Your task to perform on an android device: Go to Android settings Image 0: 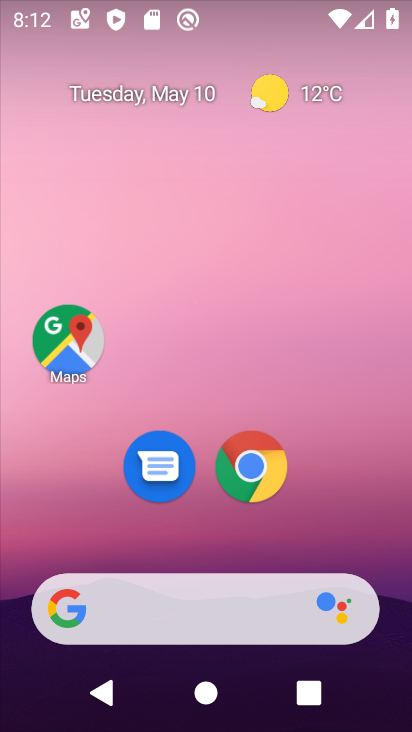
Step 0: drag from (211, 532) to (284, 4)
Your task to perform on an android device: Go to Android settings Image 1: 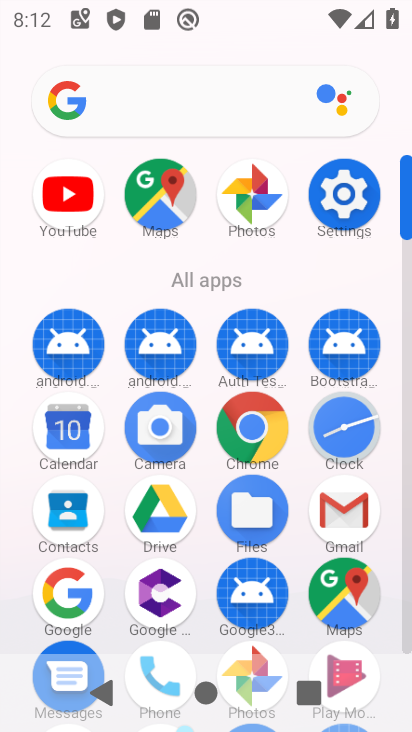
Step 1: click (340, 199)
Your task to perform on an android device: Go to Android settings Image 2: 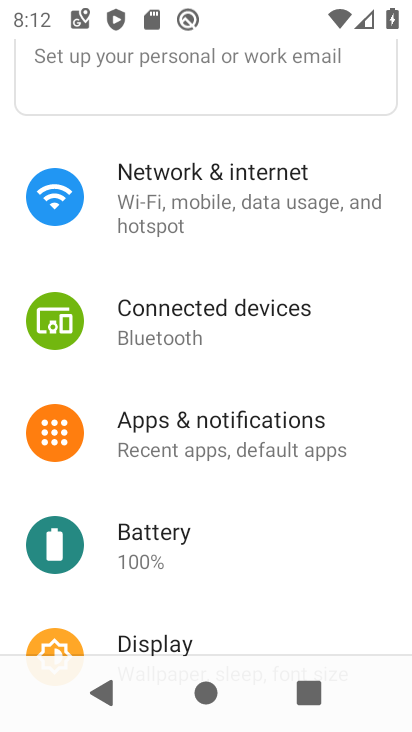
Step 2: drag from (217, 510) to (291, 2)
Your task to perform on an android device: Go to Android settings Image 3: 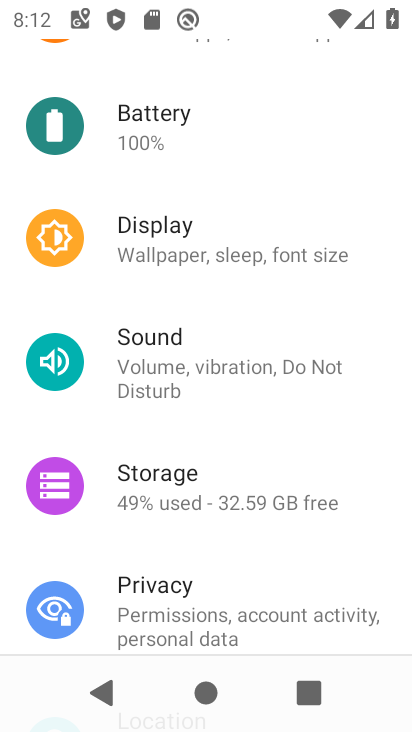
Step 3: drag from (186, 546) to (262, 110)
Your task to perform on an android device: Go to Android settings Image 4: 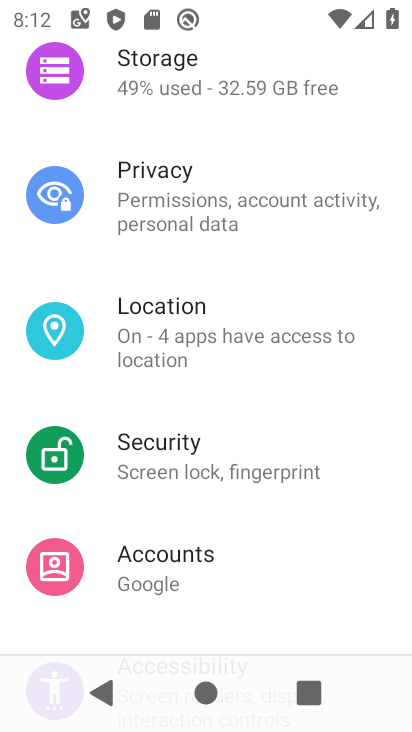
Step 4: drag from (221, 528) to (276, 174)
Your task to perform on an android device: Go to Android settings Image 5: 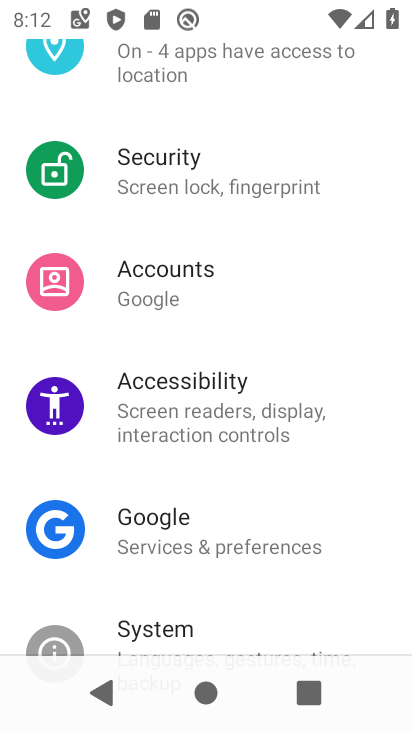
Step 5: drag from (211, 611) to (246, 182)
Your task to perform on an android device: Go to Android settings Image 6: 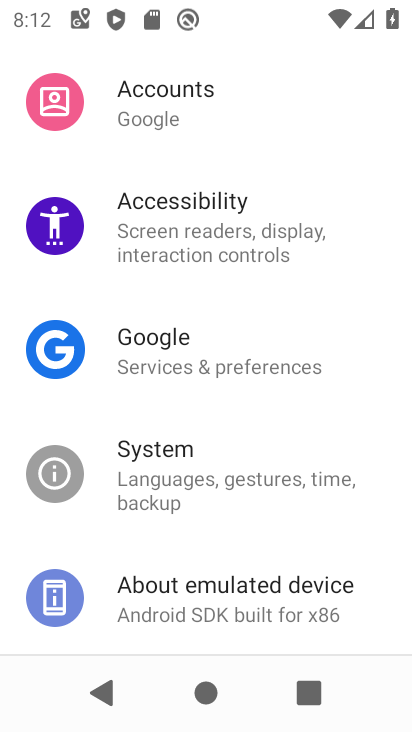
Step 6: click (165, 612)
Your task to perform on an android device: Go to Android settings Image 7: 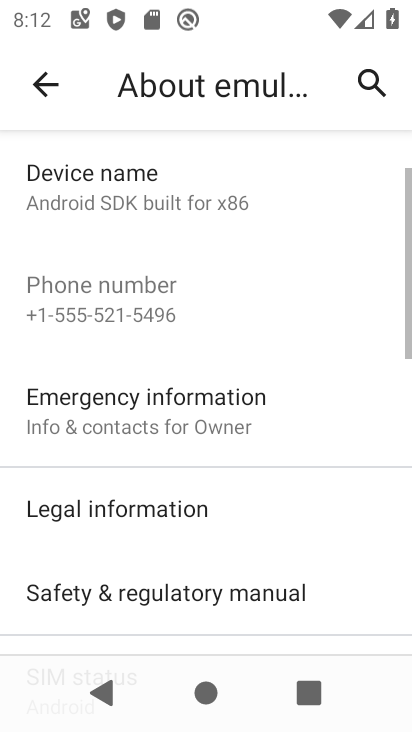
Step 7: drag from (164, 498) to (224, 133)
Your task to perform on an android device: Go to Android settings Image 8: 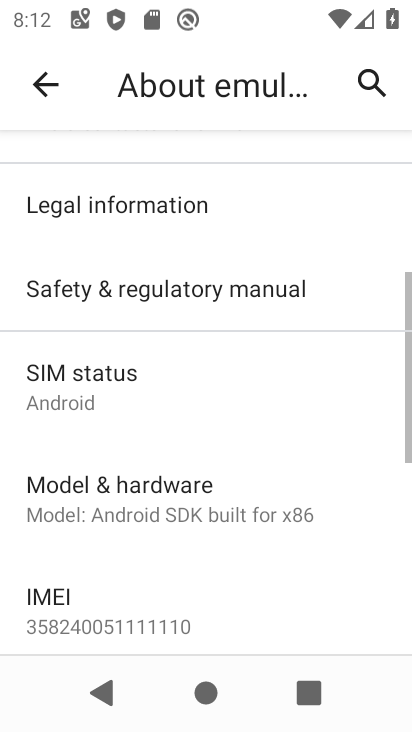
Step 8: drag from (127, 513) to (199, 201)
Your task to perform on an android device: Go to Android settings Image 9: 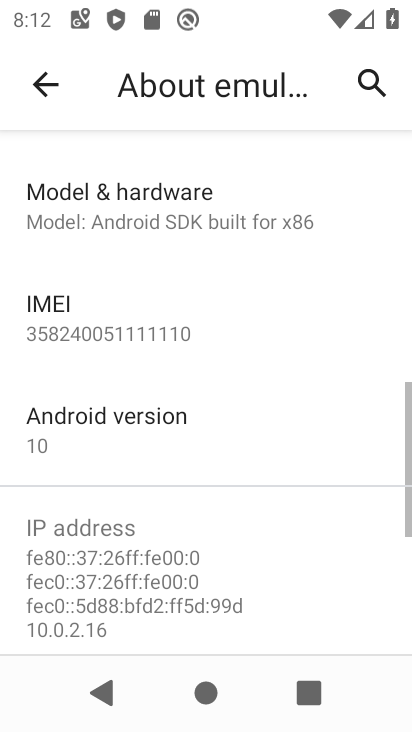
Step 9: click (132, 447)
Your task to perform on an android device: Go to Android settings Image 10: 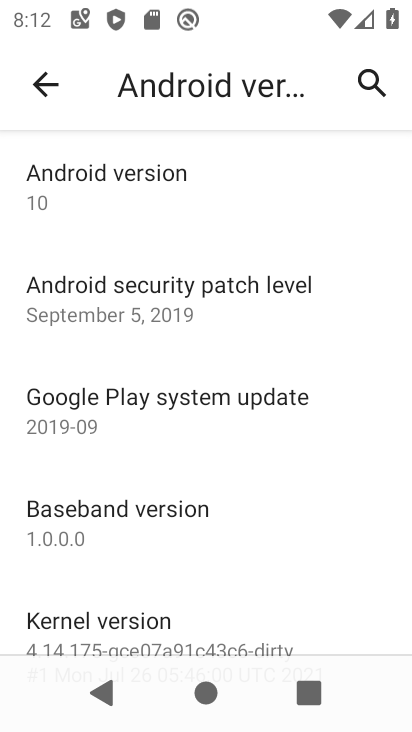
Step 10: task complete